Your task to perform on an android device: Empty the shopping cart on amazon.com. Add dell xps to the cart on amazon.com Image 0: 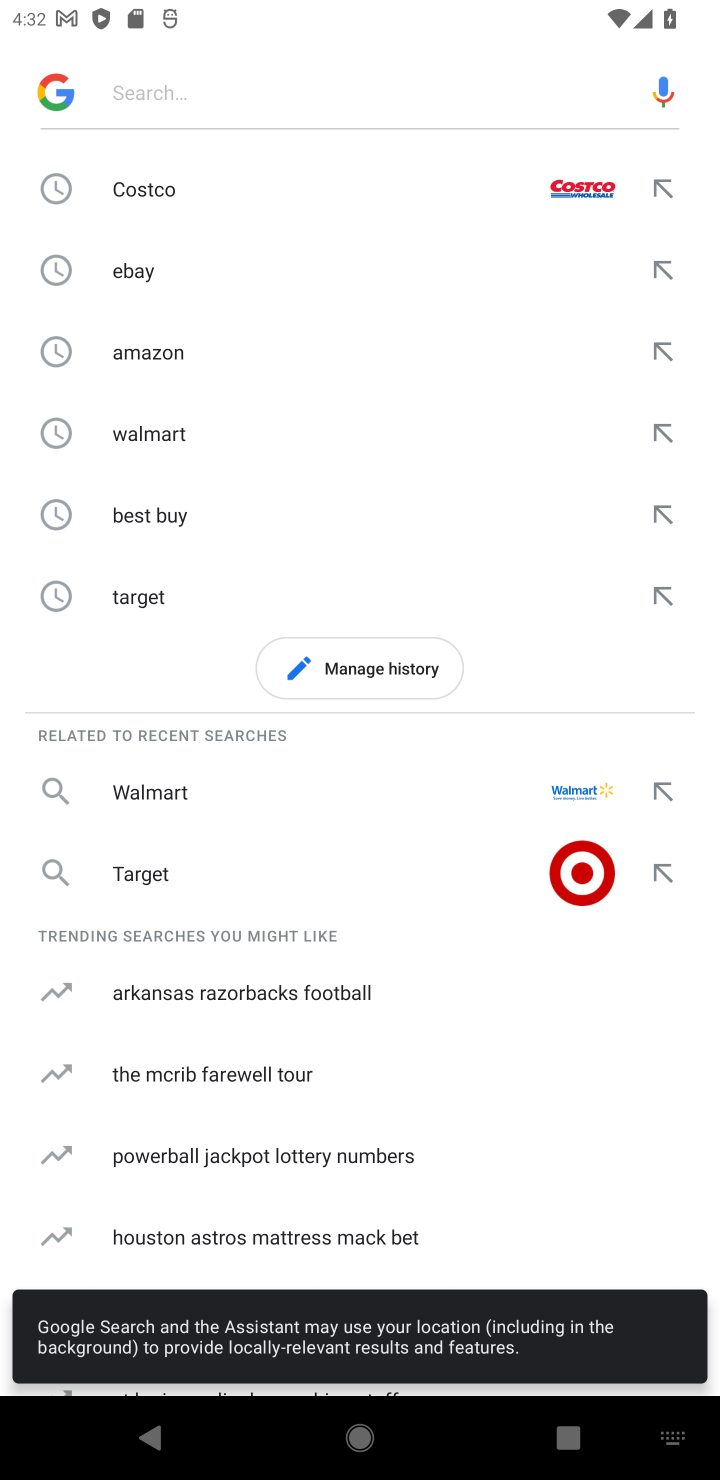
Step 0: press home button
Your task to perform on an android device: Empty the shopping cart on amazon.com. Add dell xps to the cart on amazon.com Image 1: 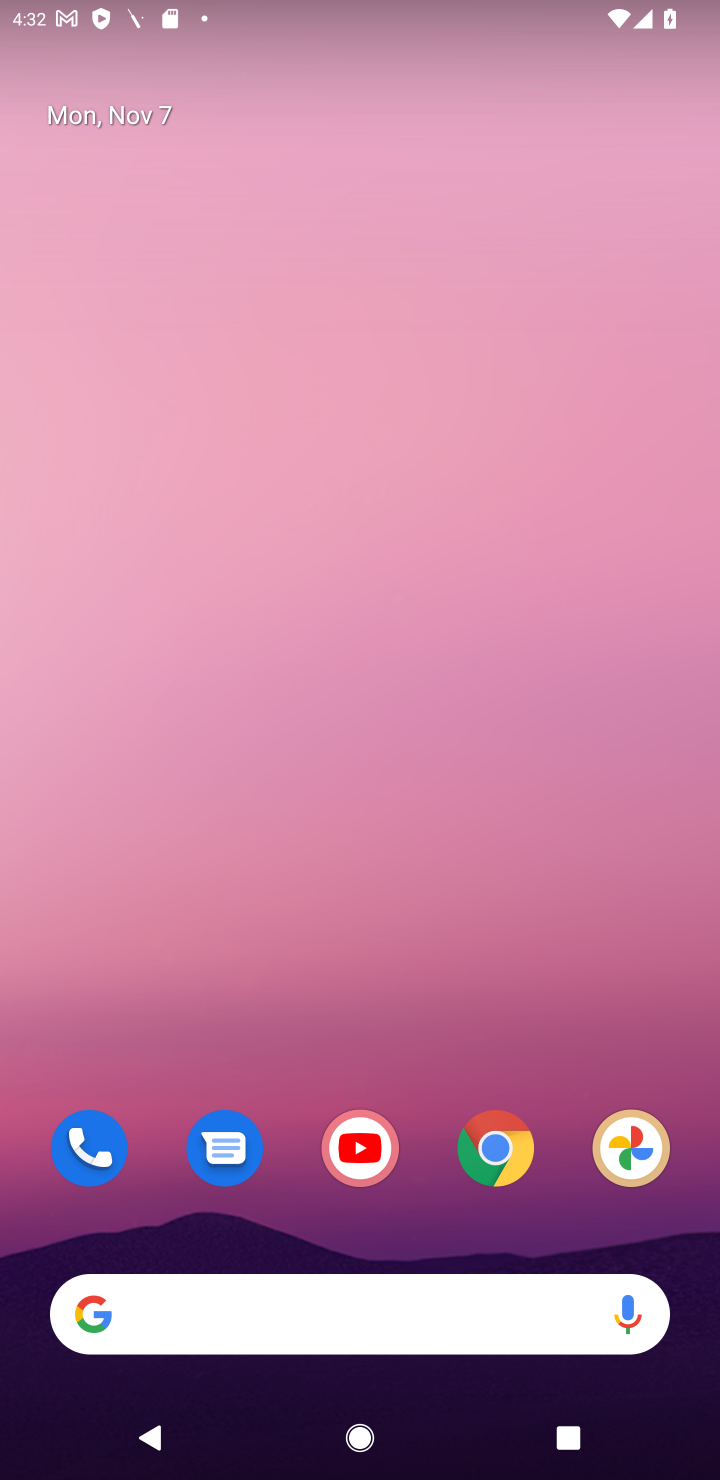
Step 1: click (498, 1156)
Your task to perform on an android device: Empty the shopping cart on amazon.com. Add dell xps to the cart on amazon.com Image 2: 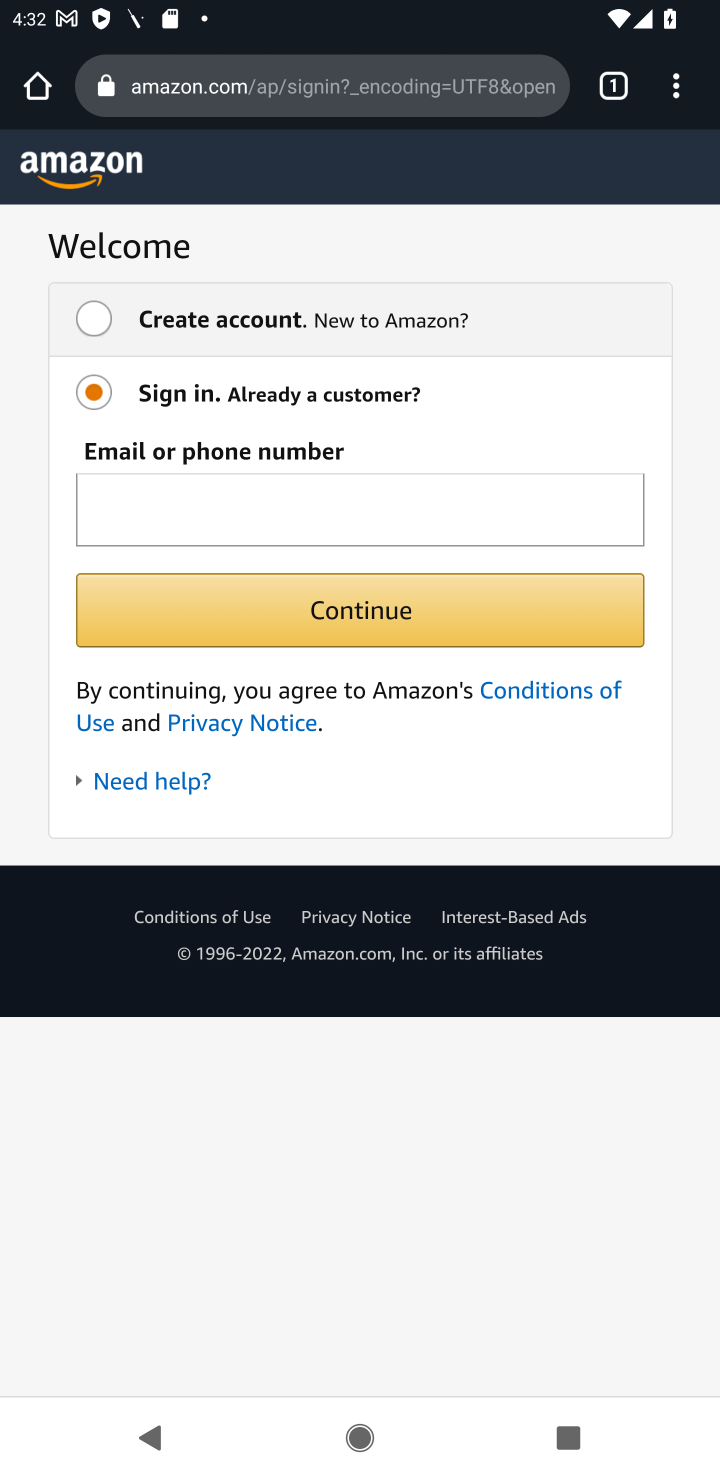
Step 2: press back button
Your task to perform on an android device: Empty the shopping cart on amazon.com. Add dell xps to the cart on amazon.com Image 3: 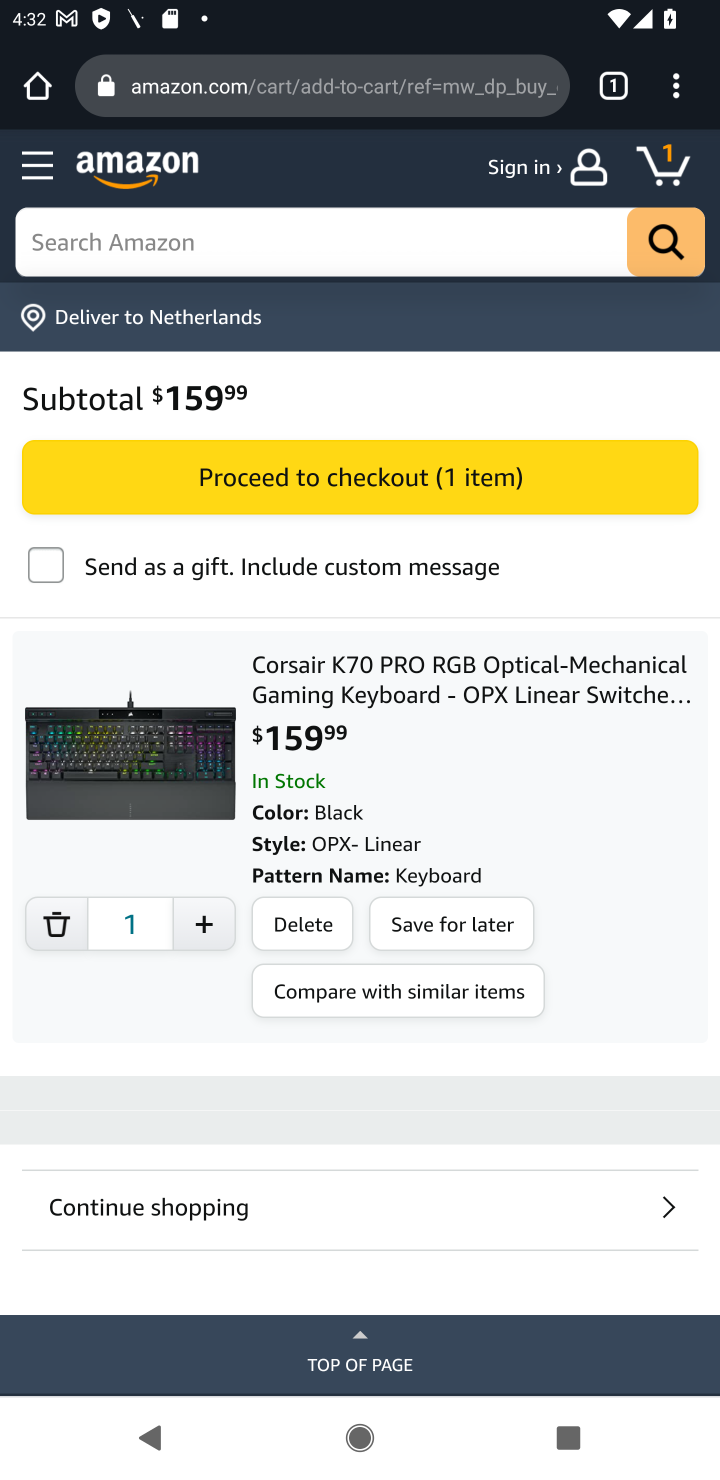
Step 3: click (667, 160)
Your task to perform on an android device: Empty the shopping cart on amazon.com. Add dell xps to the cart on amazon.com Image 4: 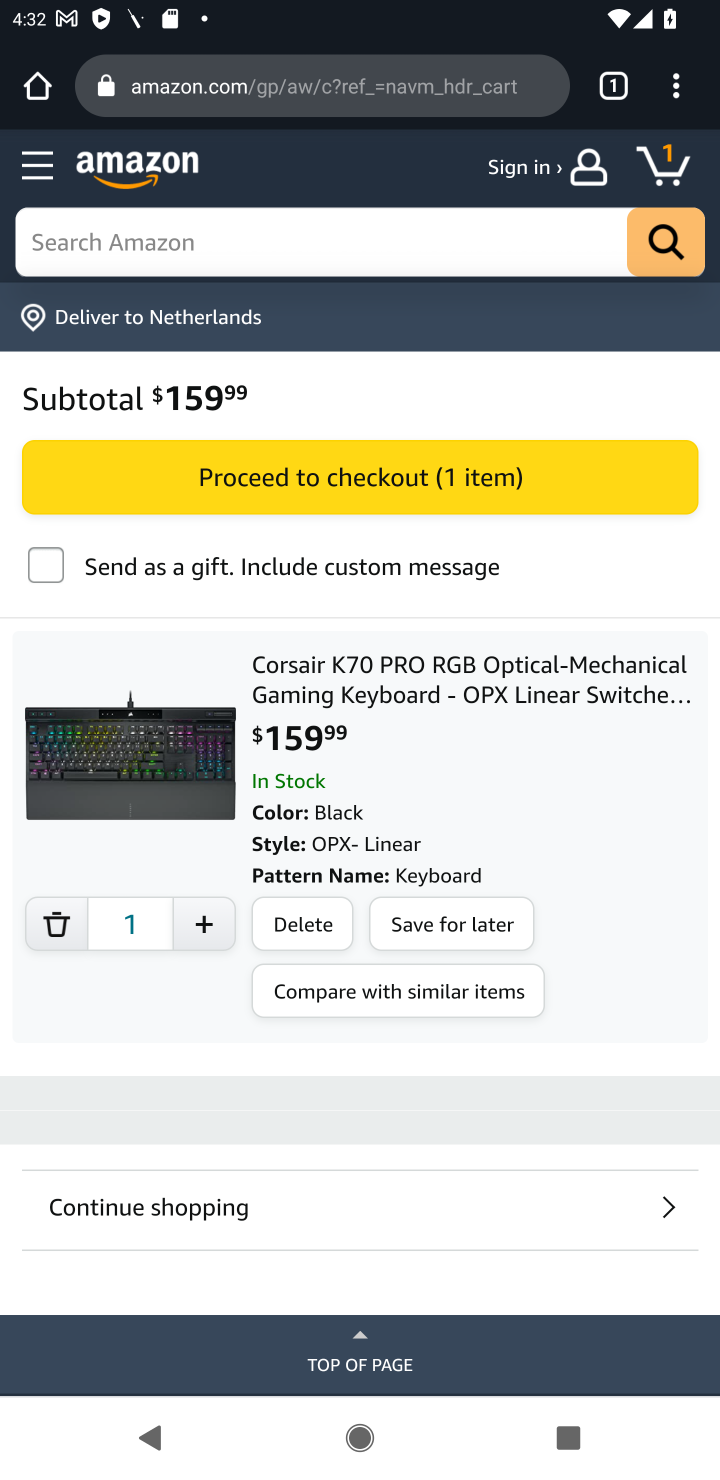
Step 4: click (667, 160)
Your task to perform on an android device: Empty the shopping cart on amazon.com. Add dell xps to the cart on amazon.com Image 5: 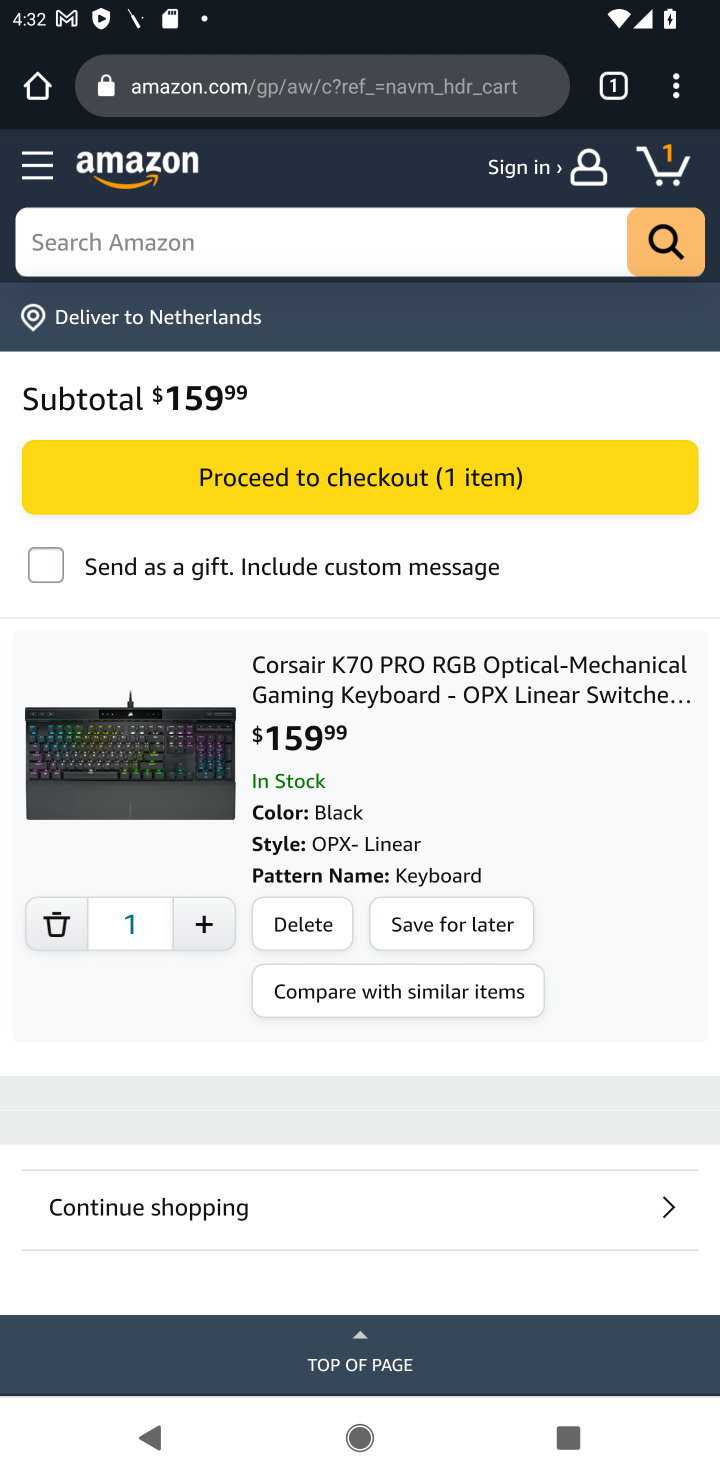
Step 5: click (53, 923)
Your task to perform on an android device: Empty the shopping cart on amazon.com. Add dell xps to the cart on amazon.com Image 6: 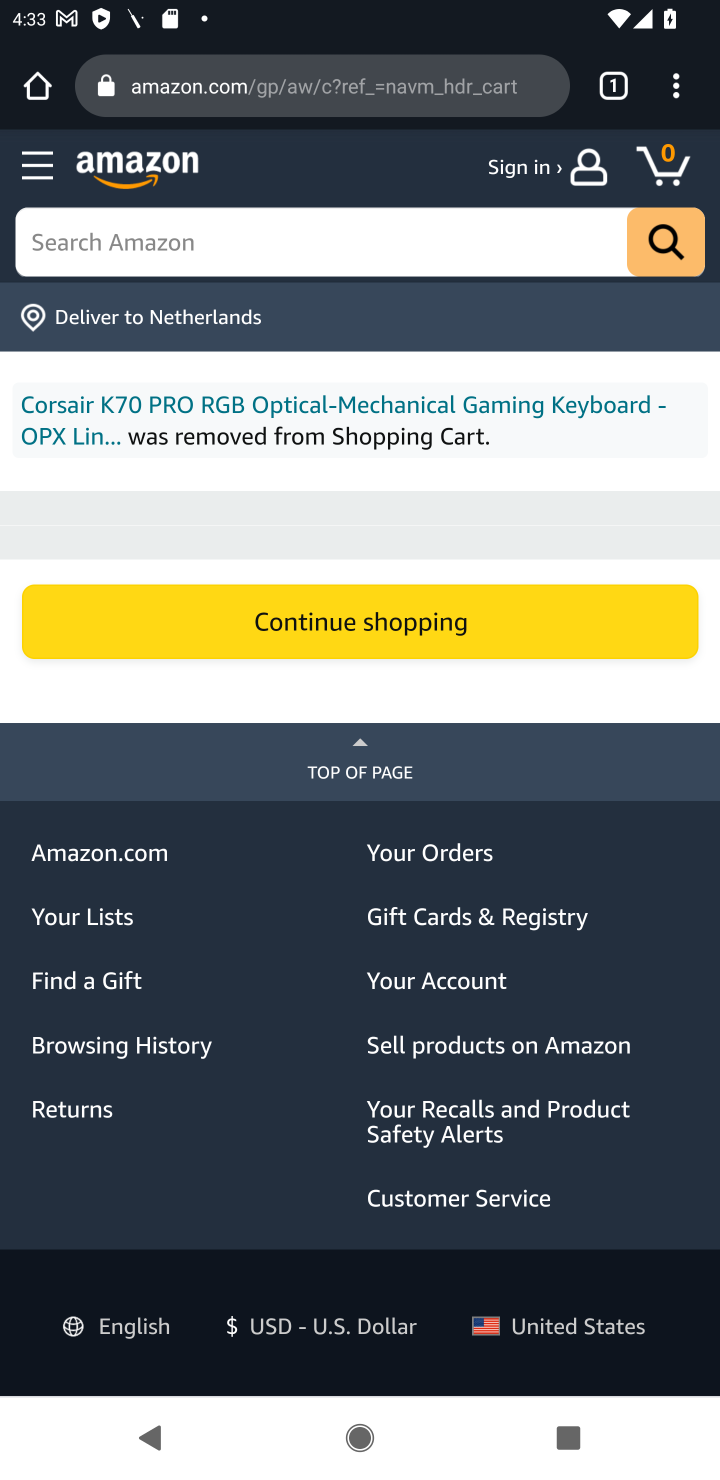
Step 6: click (189, 240)
Your task to perform on an android device: Empty the shopping cart on amazon.com. Add dell xps to the cart on amazon.com Image 7: 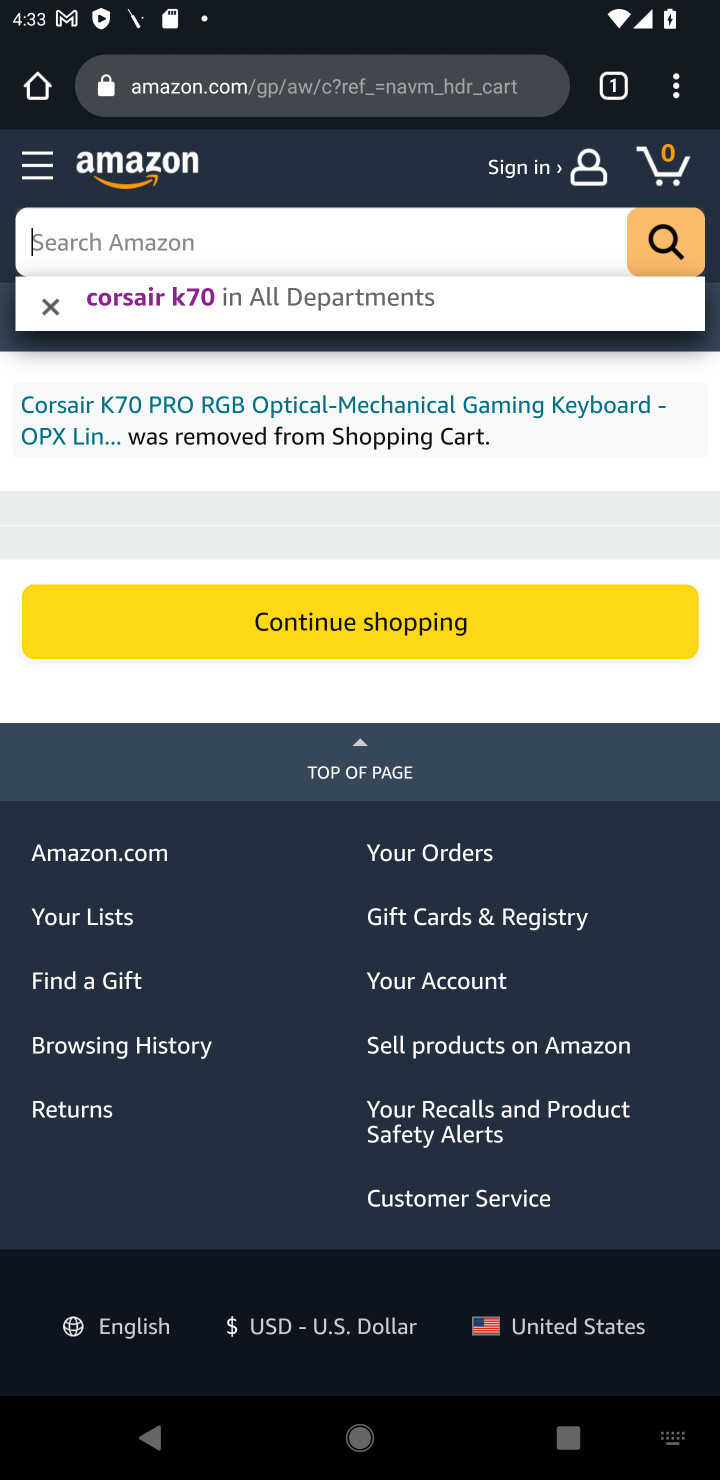
Step 7: type "dell xps"
Your task to perform on an android device: Empty the shopping cart on amazon.com. Add dell xps to the cart on amazon.com Image 8: 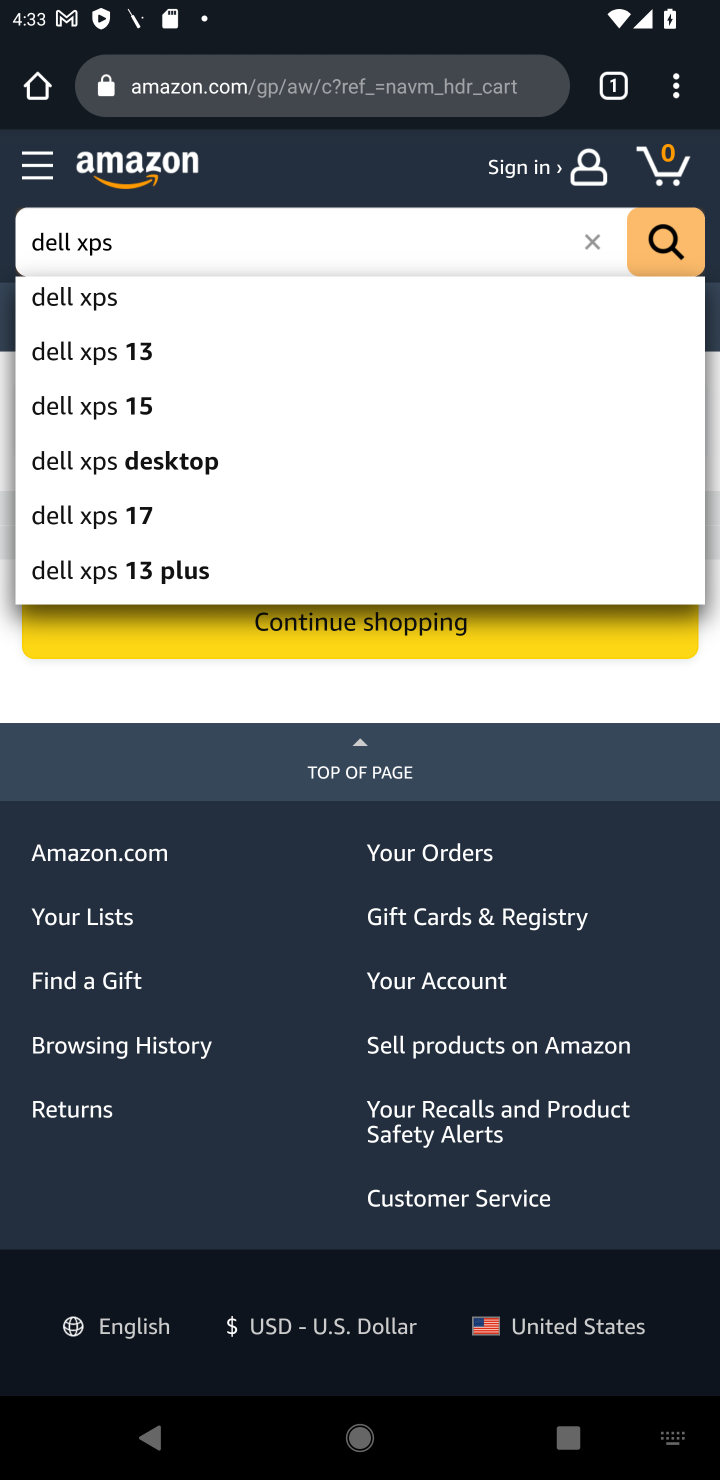
Step 8: click (61, 304)
Your task to perform on an android device: Empty the shopping cart on amazon.com. Add dell xps to the cart on amazon.com Image 9: 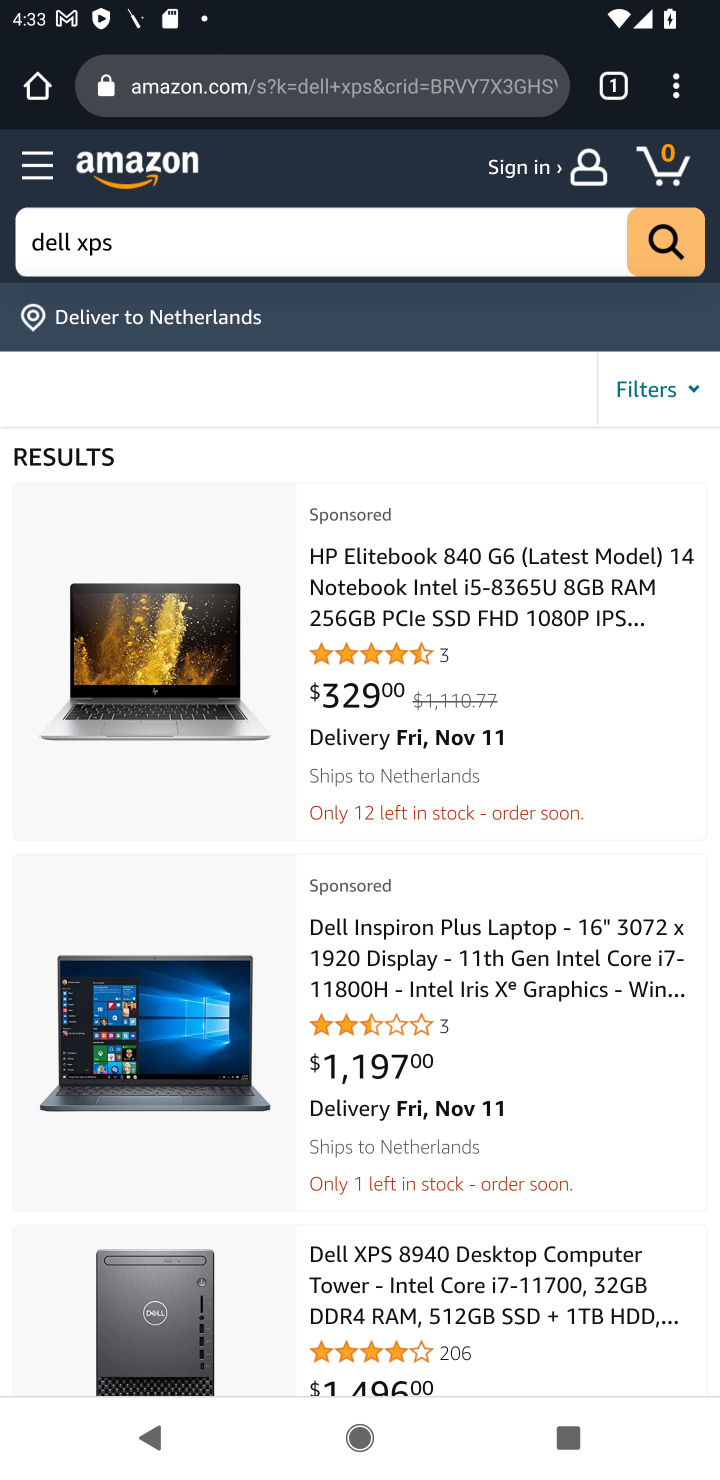
Step 9: click (390, 1285)
Your task to perform on an android device: Empty the shopping cart on amazon.com. Add dell xps to the cart on amazon.com Image 10: 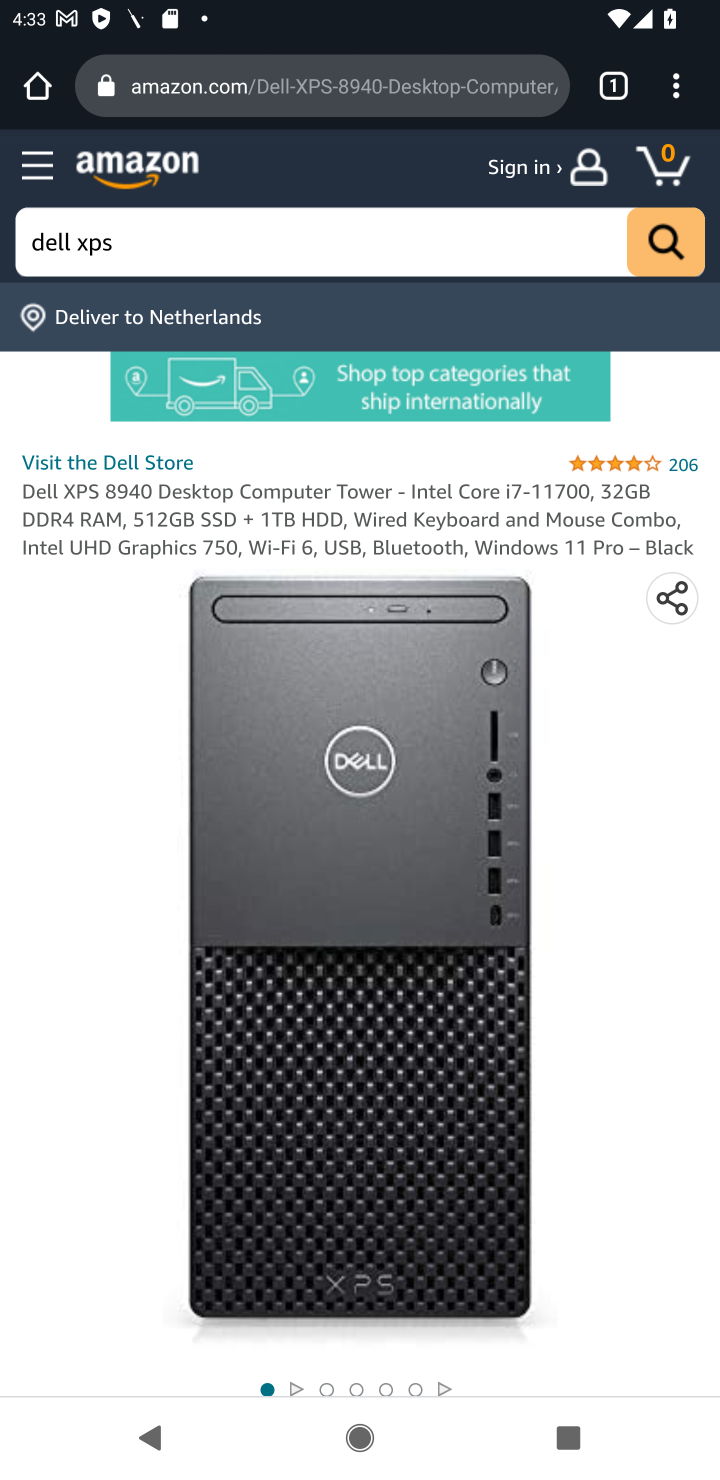
Step 10: drag from (490, 1192) to (338, 384)
Your task to perform on an android device: Empty the shopping cart on amazon.com. Add dell xps to the cart on amazon.com Image 11: 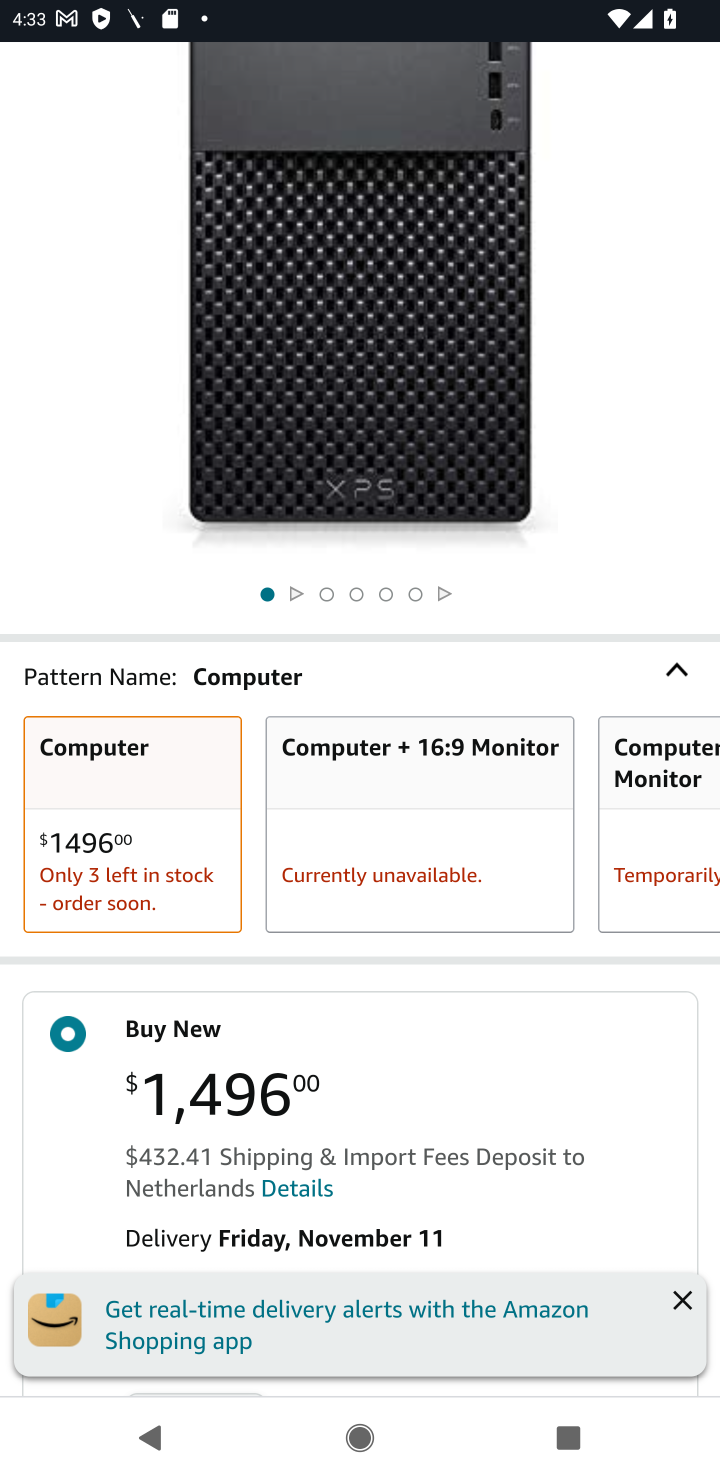
Step 11: drag from (424, 290) to (383, 510)
Your task to perform on an android device: Empty the shopping cart on amazon.com. Add dell xps to the cart on amazon.com Image 12: 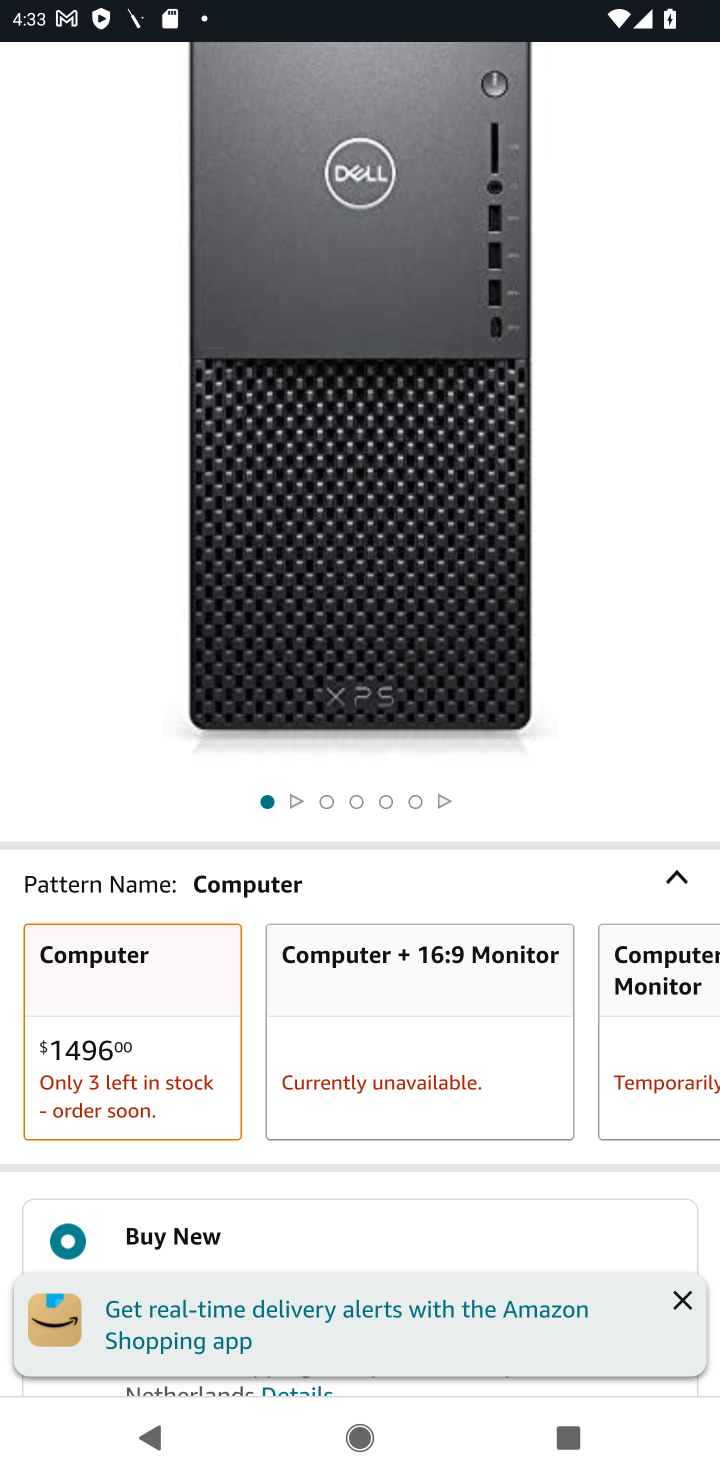
Step 12: click (684, 1300)
Your task to perform on an android device: Empty the shopping cart on amazon.com. Add dell xps to the cart on amazon.com Image 13: 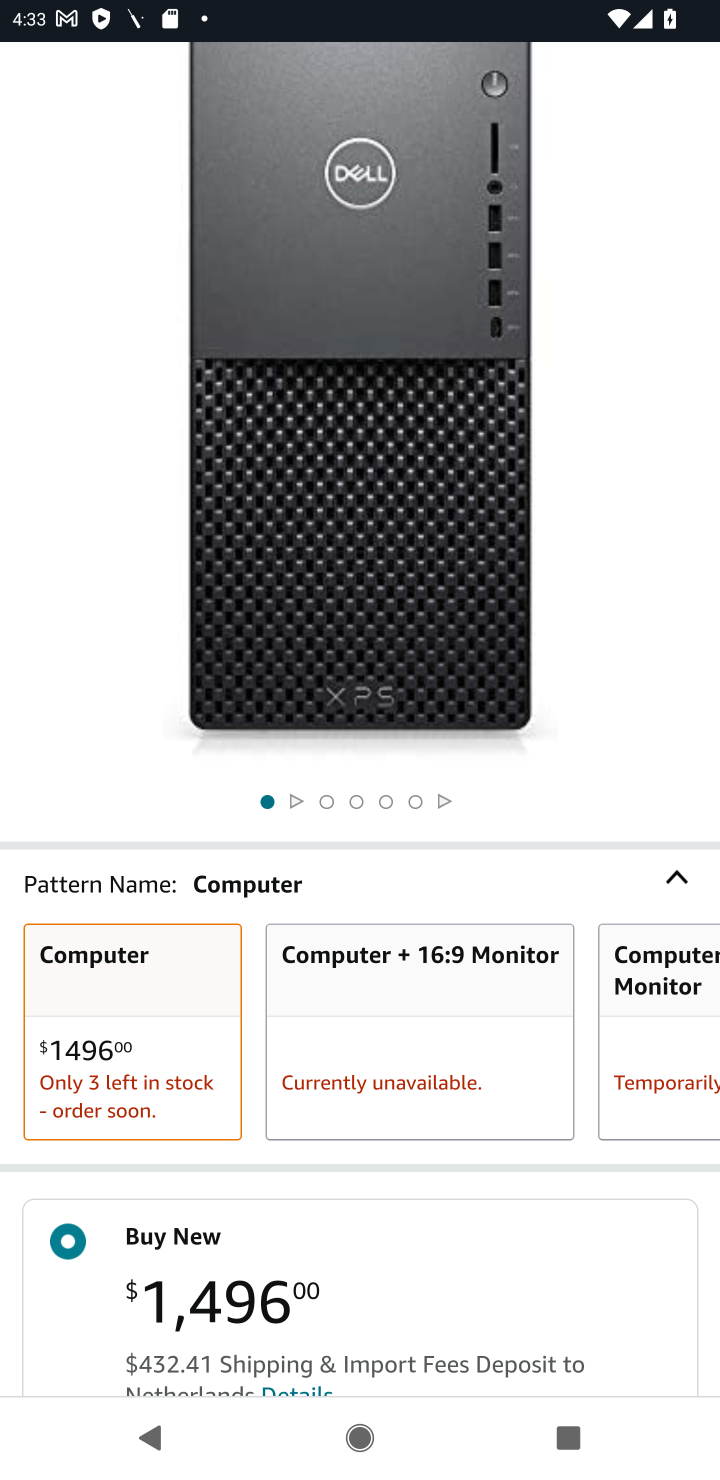
Step 13: drag from (457, 1301) to (358, 374)
Your task to perform on an android device: Empty the shopping cart on amazon.com. Add dell xps to the cart on amazon.com Image 14: 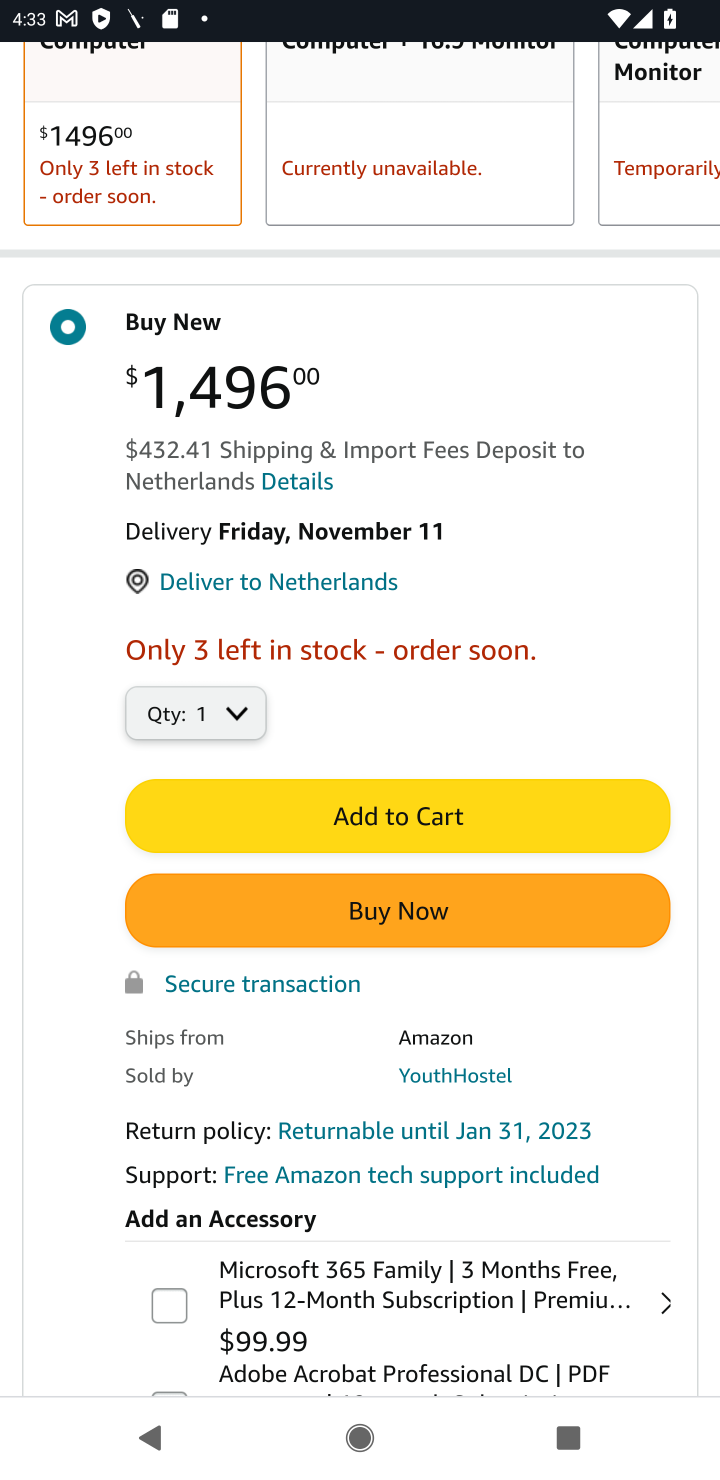
Step 14: drag from (506, 1308) to (376, 253)
Your task to perform on an android device: Empty the shopping cart on amazon.com. Add dell xps to the cart on amazon.com Image 15: 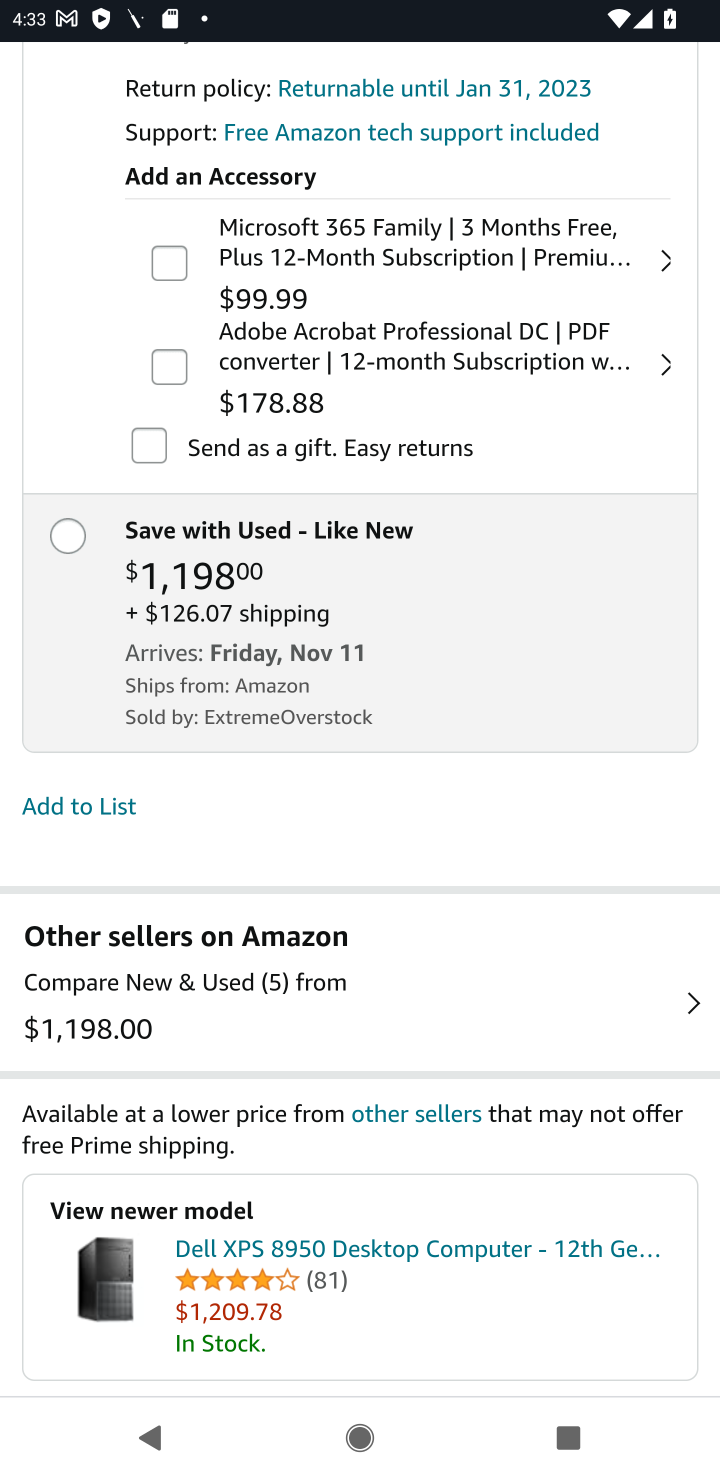
Step 15: drag from (522, 509) to (420, 1130)
Your task to perform on an android device: Empty the shopping cart on amazon.com. Add dell xps to the cart on amazon.com Image 16: 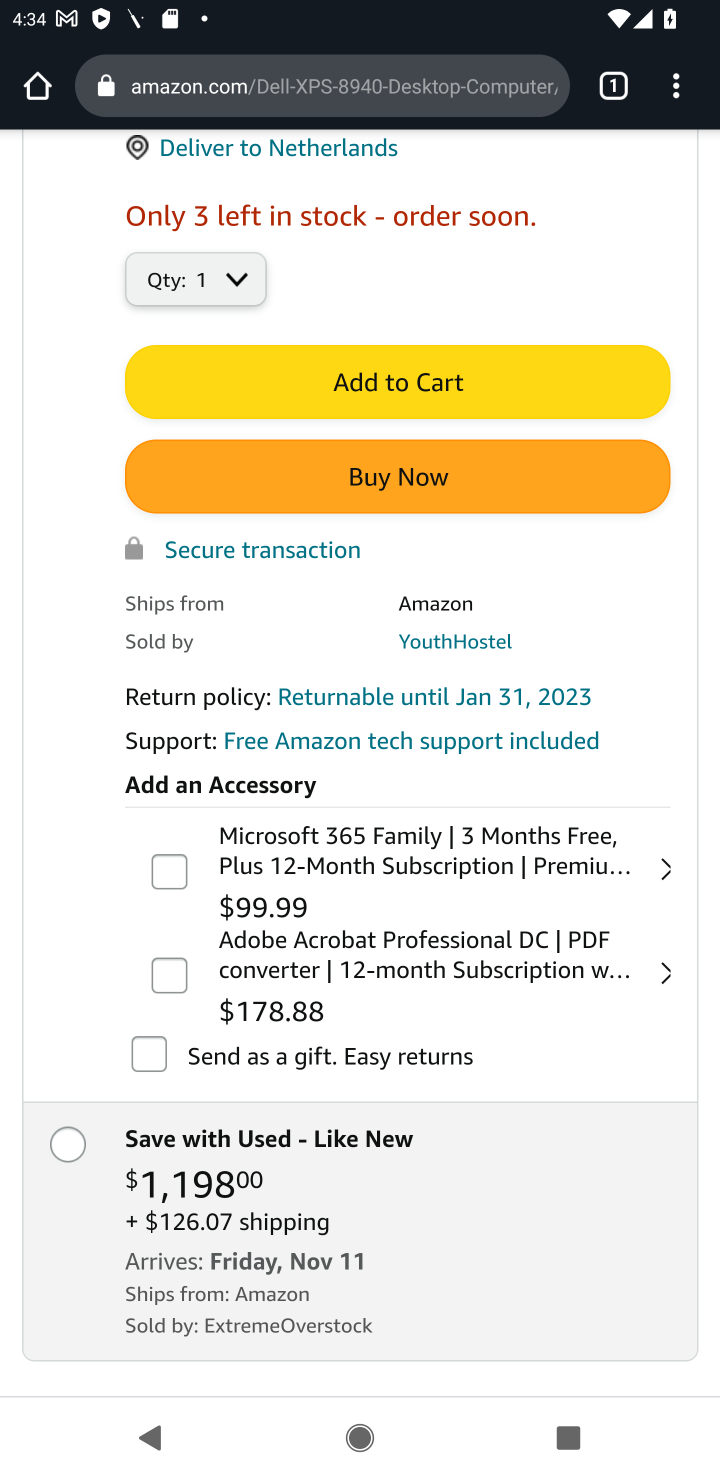
Step 16: click (372, 371)
Your task to perform on an android device: Empty the shopping cart on amazon.com. Add dell xps to the cart on amazon.com Image 17: 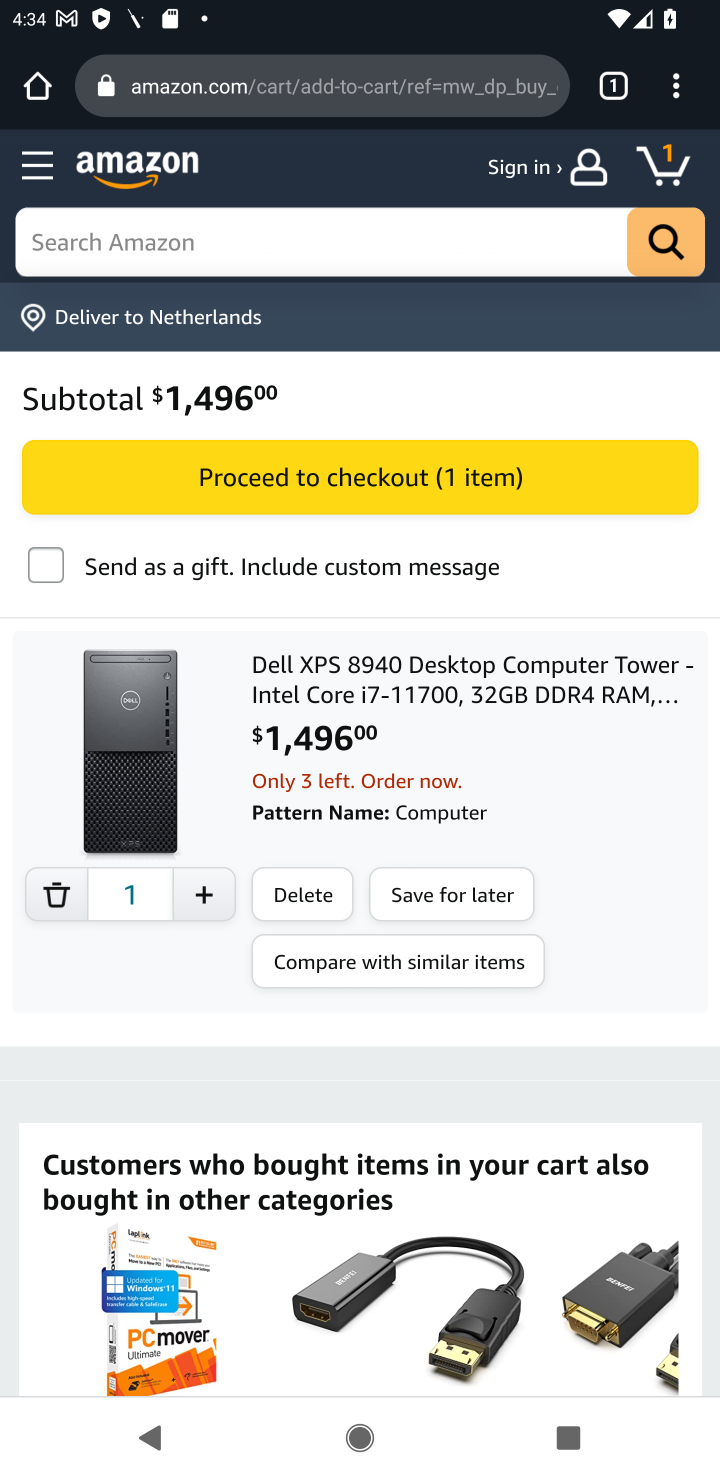
Step 17: task complete